Your task to perform on an android device: Clear all items from cart on costco.com. Add "macbook pro 15 inch" to the cart on costco.com Image 0: 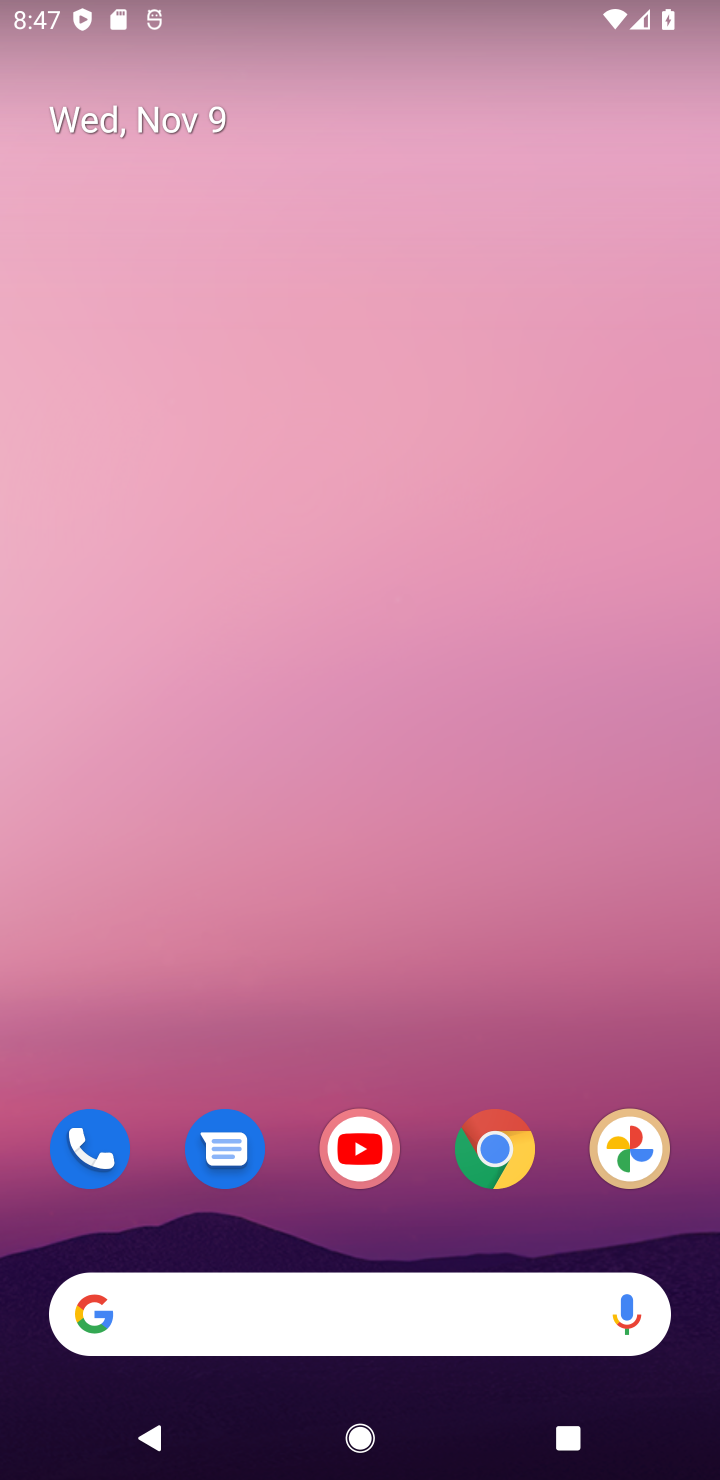
Step 0: click (498, 1134)
Your task to perform on an android device: Clear all items from cart on costco.com. Add "macbook pro 15 inch" to the cart on costco.com Image 1: 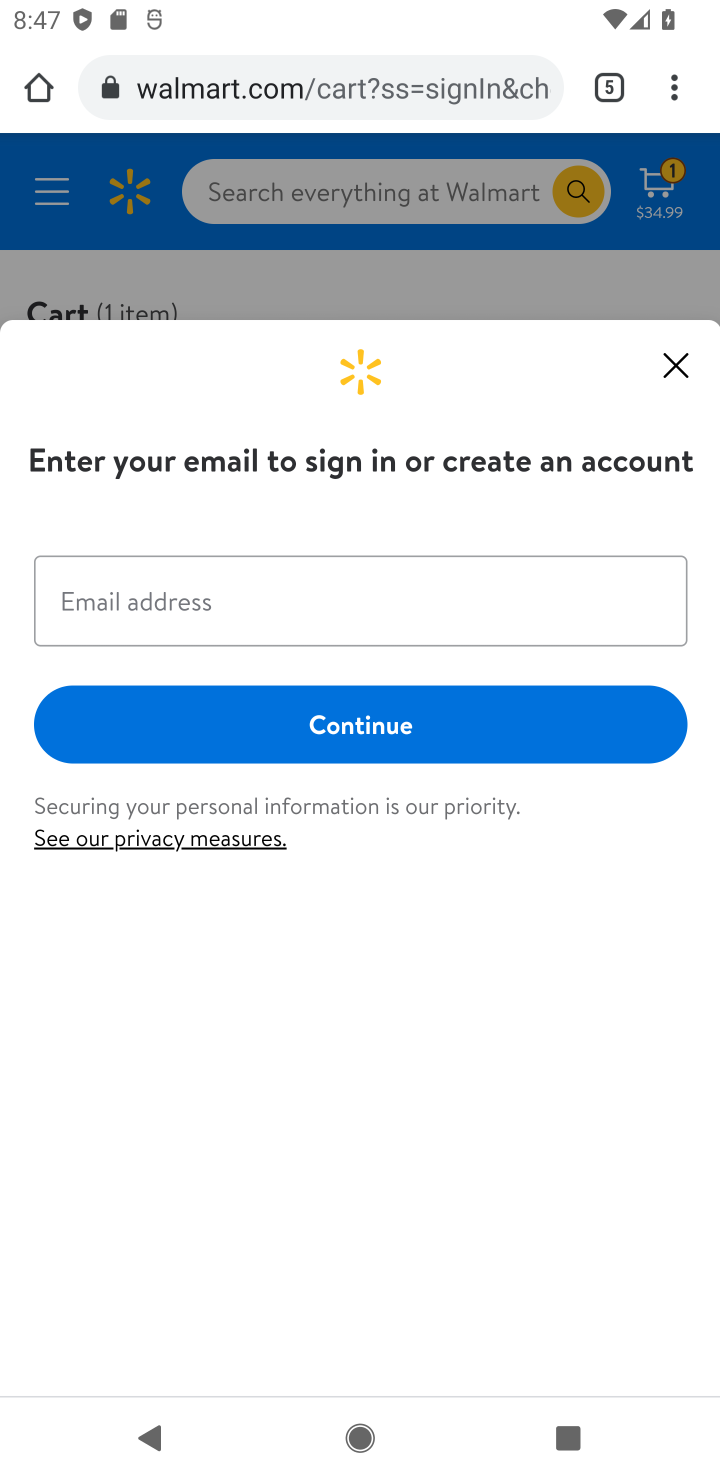
Step 1: click (611, 84)
Your task to perform on an android device: Clear all items from cart on costco.com. Add "macbook pro 15 inch" to the cart on costco.com Image 2: 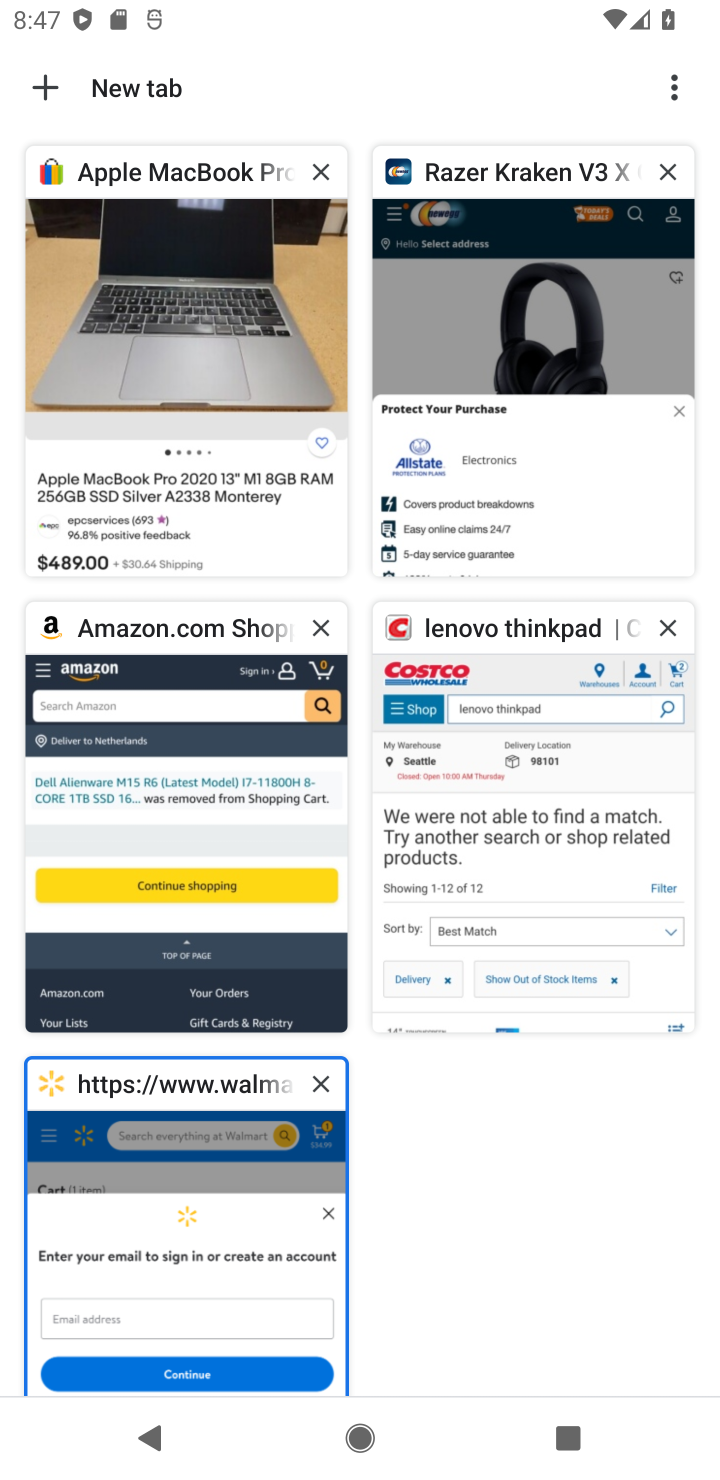
Step 2: click (526, 741)
Your task to perform on an android device: Clear all items from cart on costco.com. Add "macbook pro 15 inch" to the cart on costco.com Image 3: 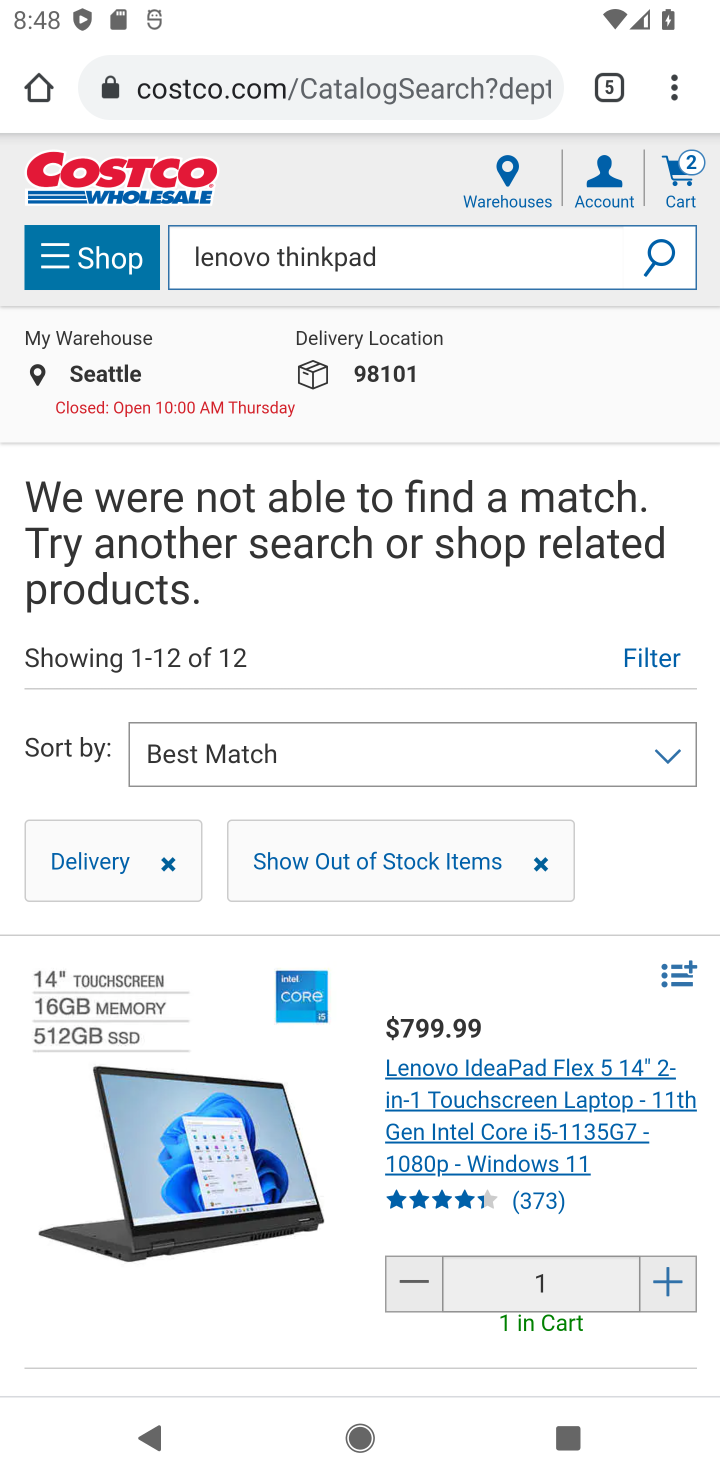
Step 3: click (680, 188)
Your task to perform on an android device: Clear all items from cart on costco.com. Add "macbook pro 15 inch" to the cart on costco.com Image 4: 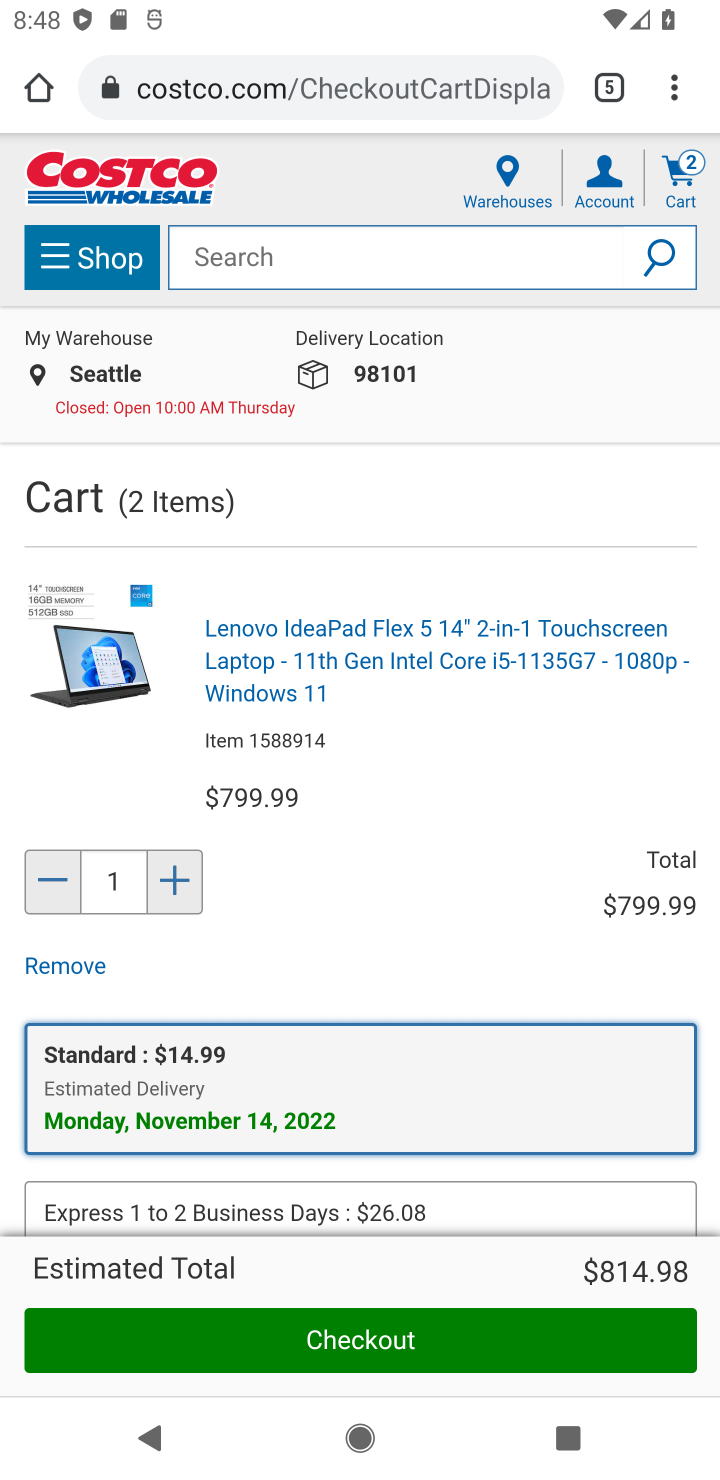
Step 4: click (80, 966)
Your task to perform on an android device: Clear all items from cart on costco.com. Add "macbook pro 15 inch" to the cart on costco.com Image 5: 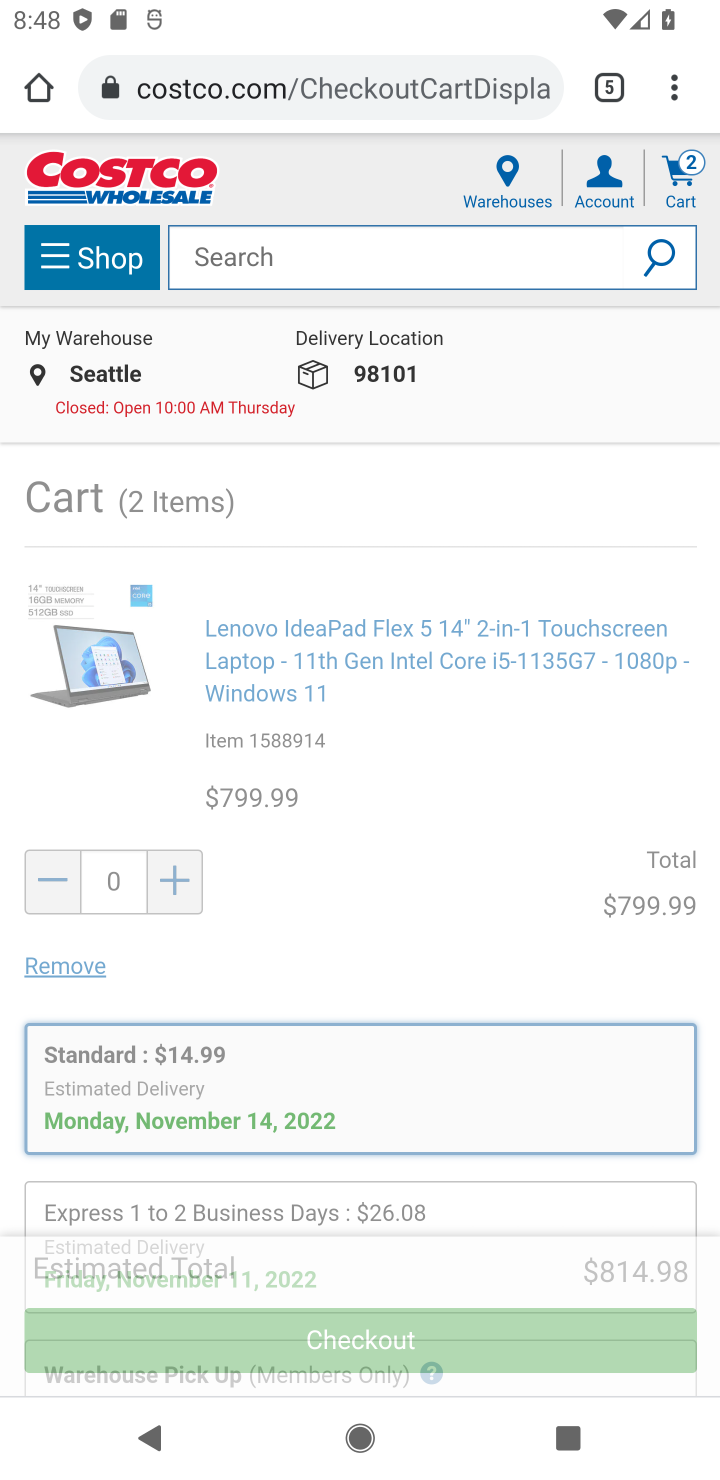
Step 5: drag from (365, 972) to (349, 527)
Your task to perform on an android device: Clear all items from cart on costco.com. Add "macbook pro 15 inch" to the cart on costco.com Image 6: 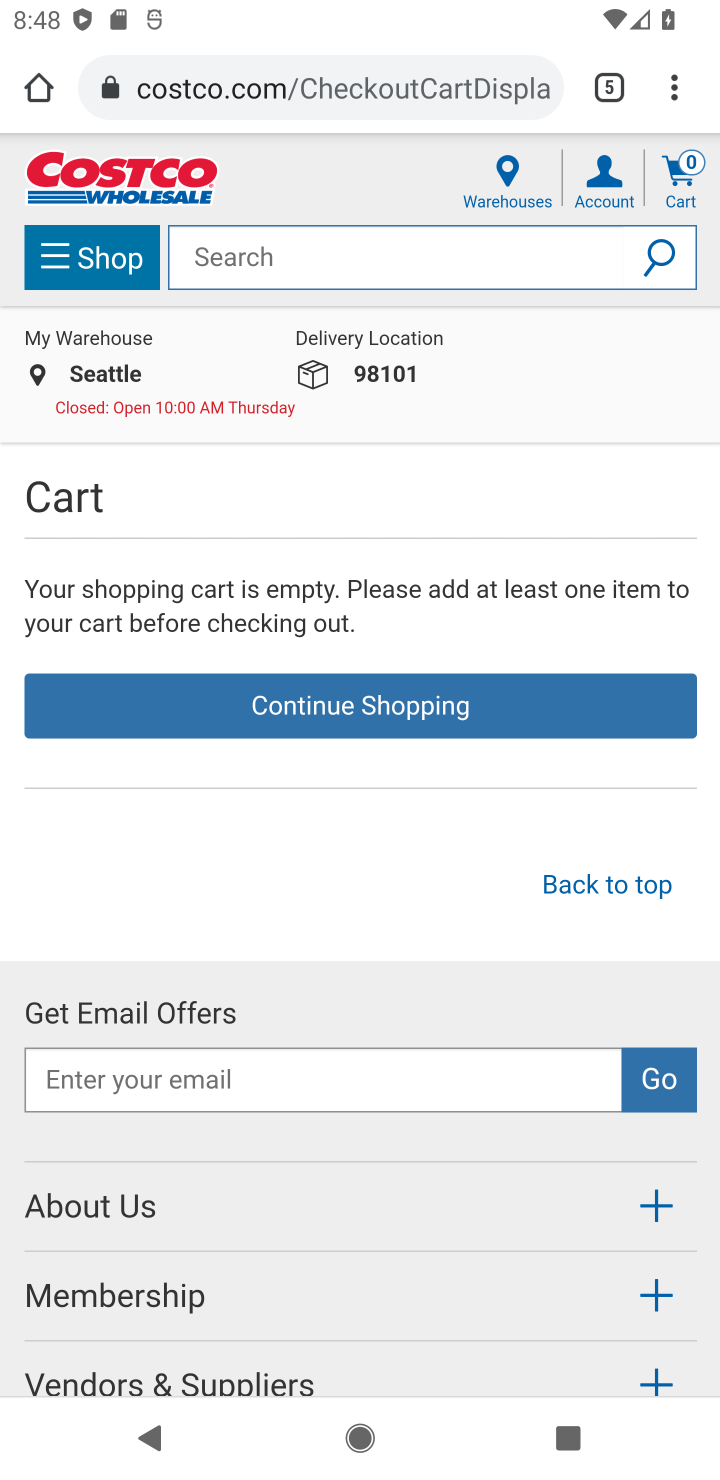
Step 6: click (368, 252)
Your task to perform on an android device: Clear all items from cart on costco.com. Add "macbook pro 15 inch" to the cart on costco.com Image 7: 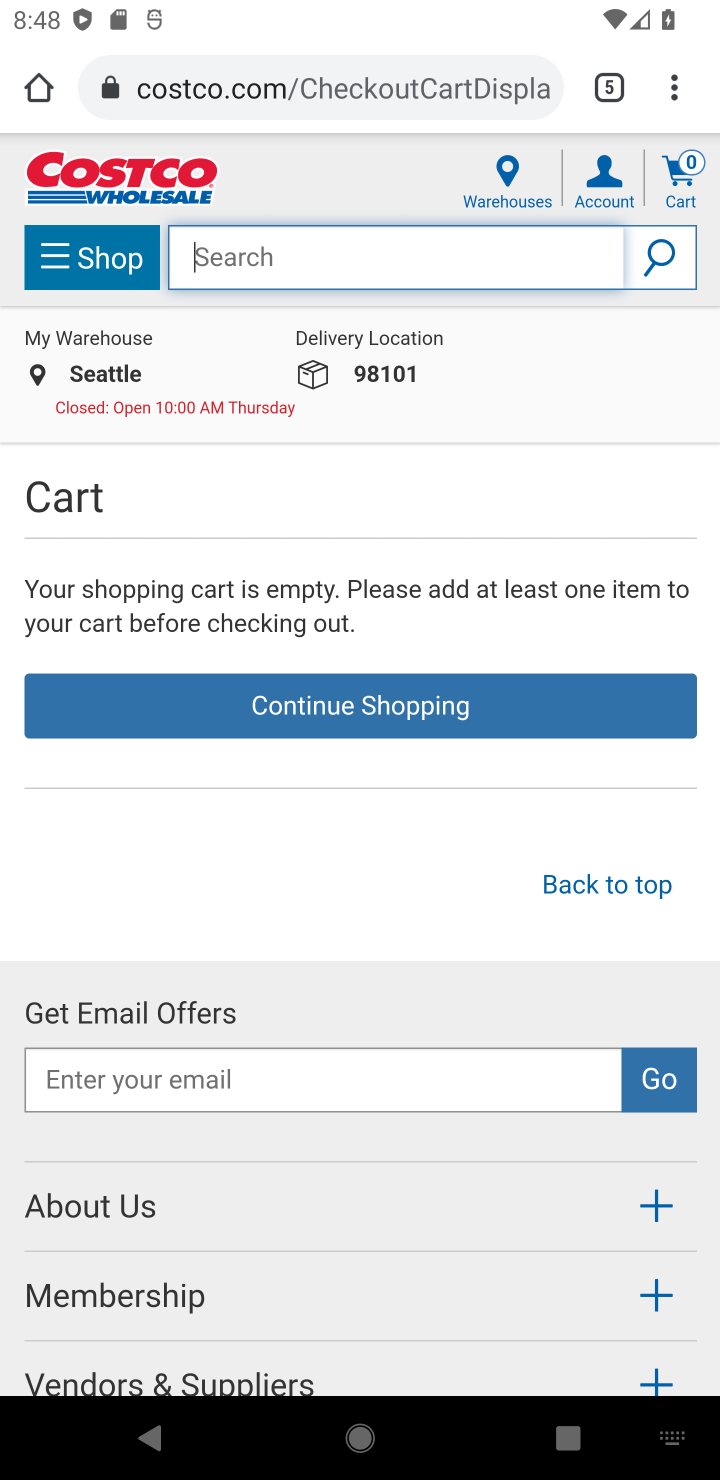
Step 7: type "macbook pro 15 inch"
Your task to perform on an android device: Clear all items from cart on costco.com. Add "macbook pro 15 inch" to the cart on costco.com Image 8: 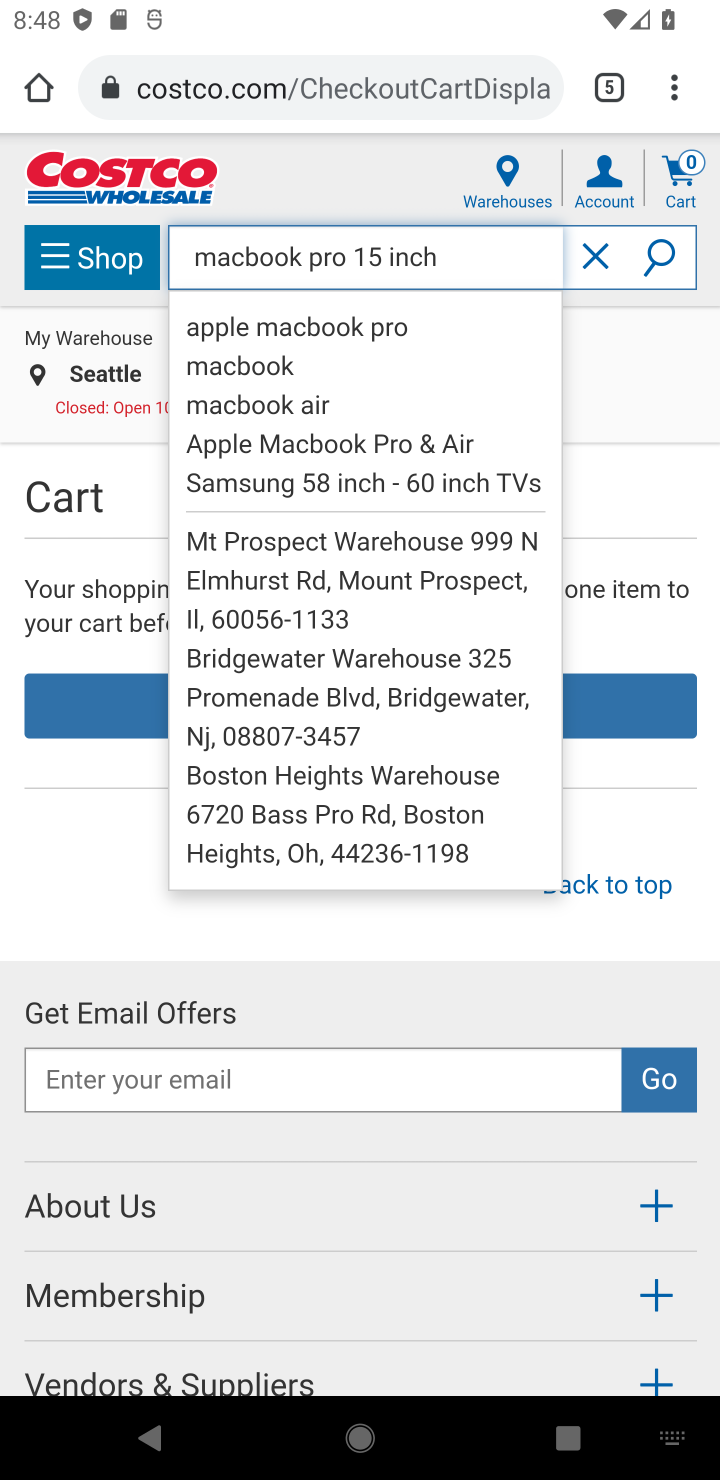
Step 8: click (662, 249)
Your task to perform on an android device: Clear all items from cart on costco.com. Add "macbook pro 15 inch" to the cart on costco.com Image 9: 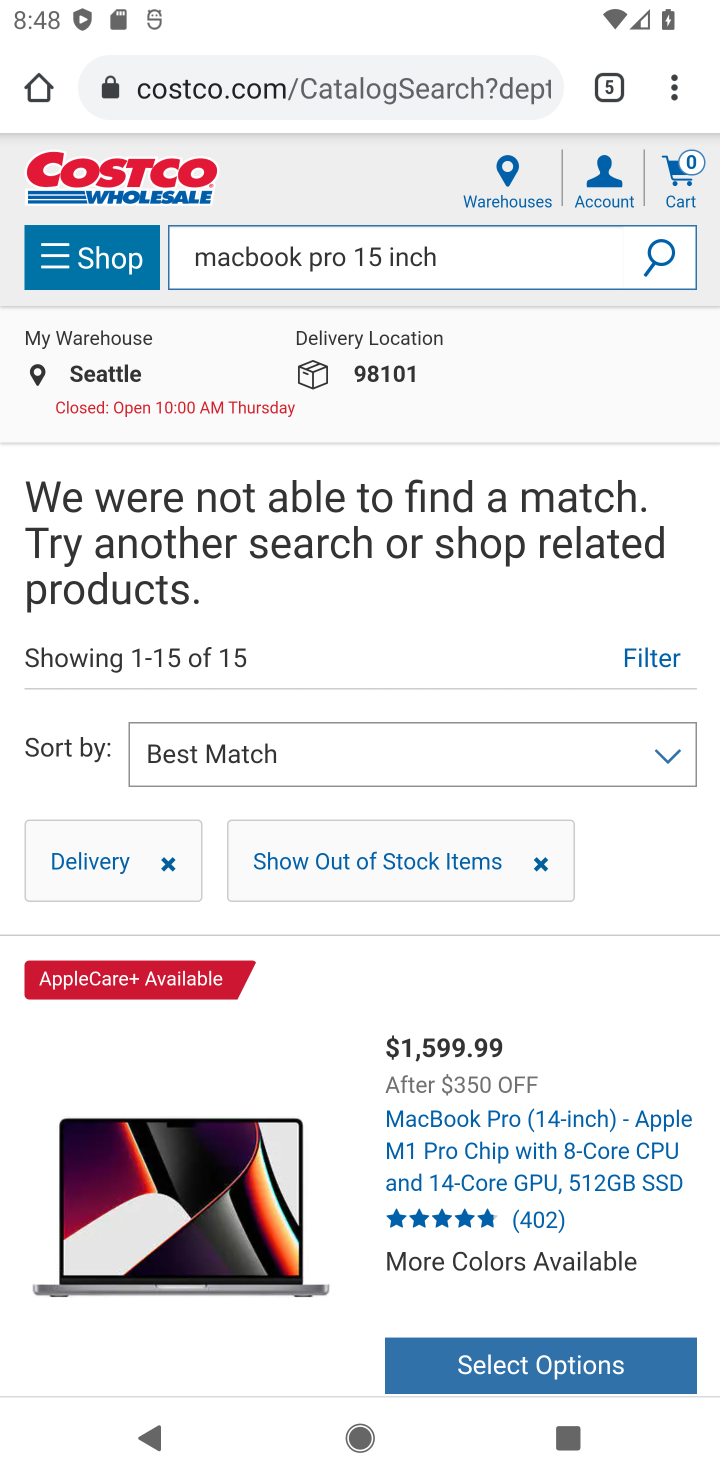
Step 9: click (613, 1186)
Your task to perform on an android device: Clear all items from cart on costco.com. Add "macbook pro 15 inch" to the cart on costco.com Image 10: 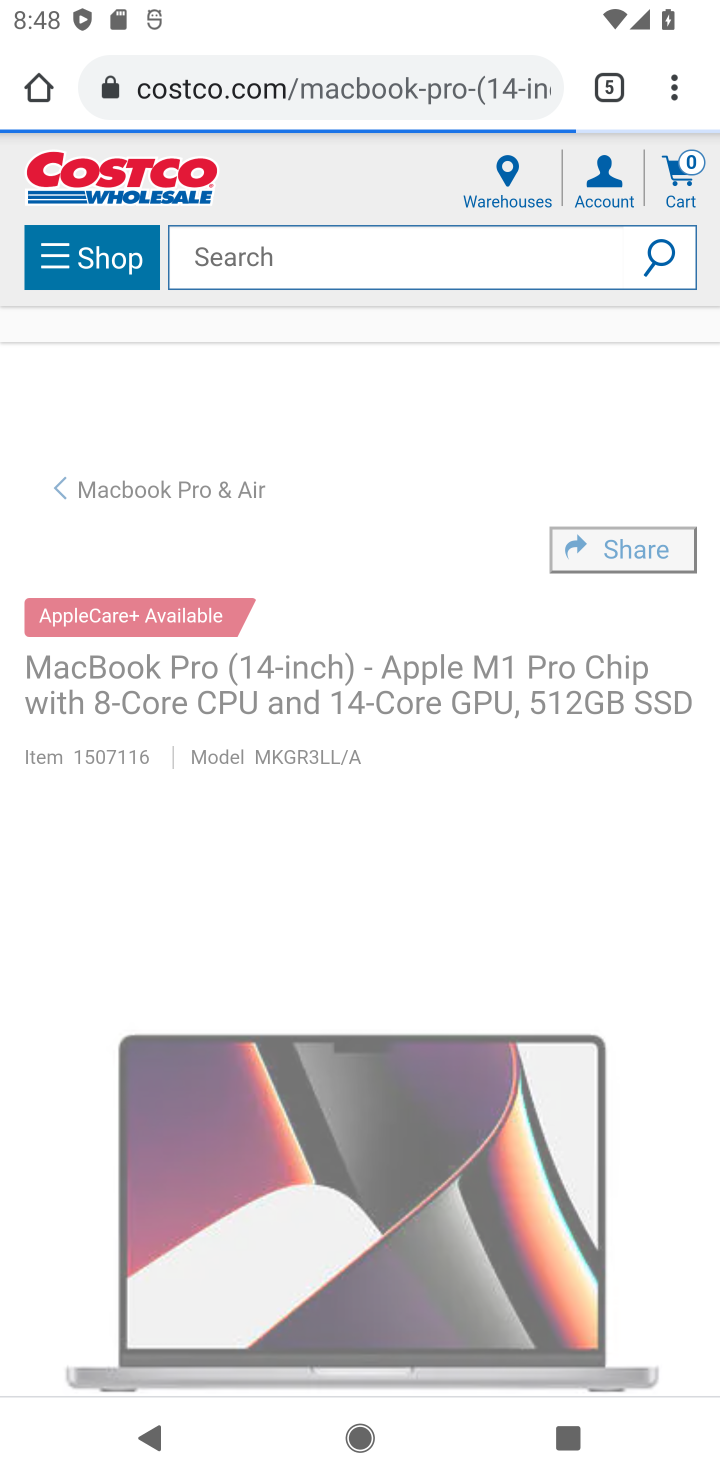
Step 10: drag from (445, 1163) to (481, 458)
Your task to perform on an android device: Clear all items from cart on costco.com. Add "macbook pro 15 inch" to the cart on costco.com Image 11: 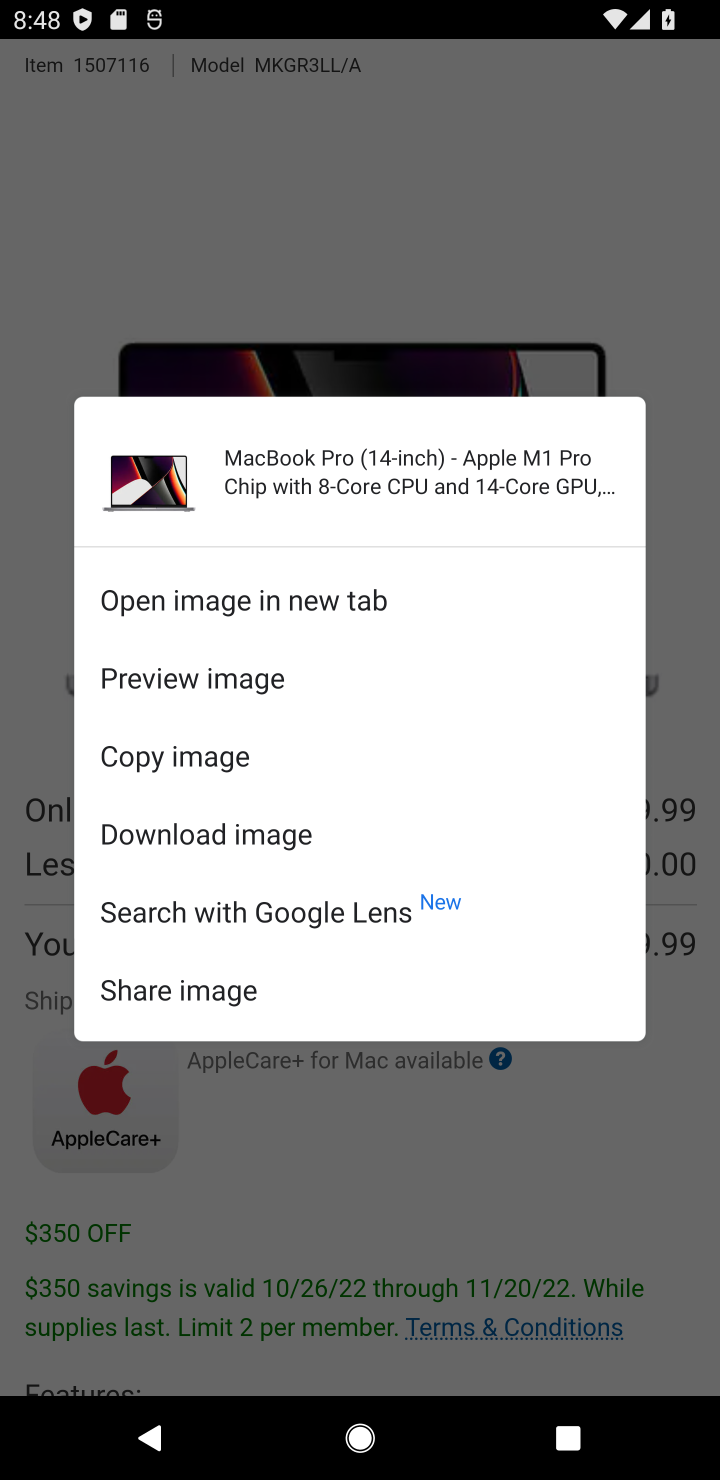
Step 11: click (359, 1222)
Your task to perform on an android device: Clear all items from cart on costco.com. Add "macbook pro 15 inch" to the cart on costco.com Image 12: 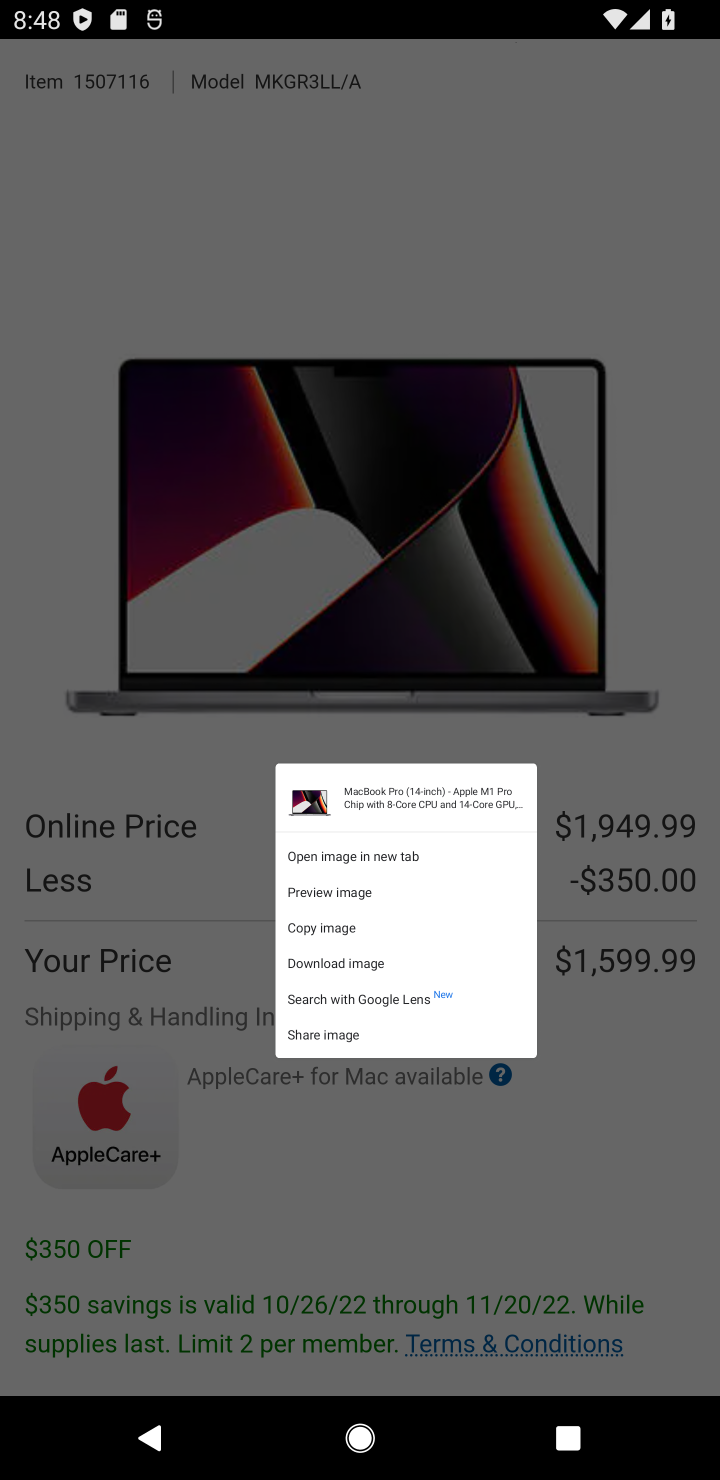
Step 12: drag from (359, 1222) to (399, 643)
Your task to perform on an android device: Clear all items from cart on costco.com. Add "macbook pro 15 inch" to the cart on costco.com Image 13: 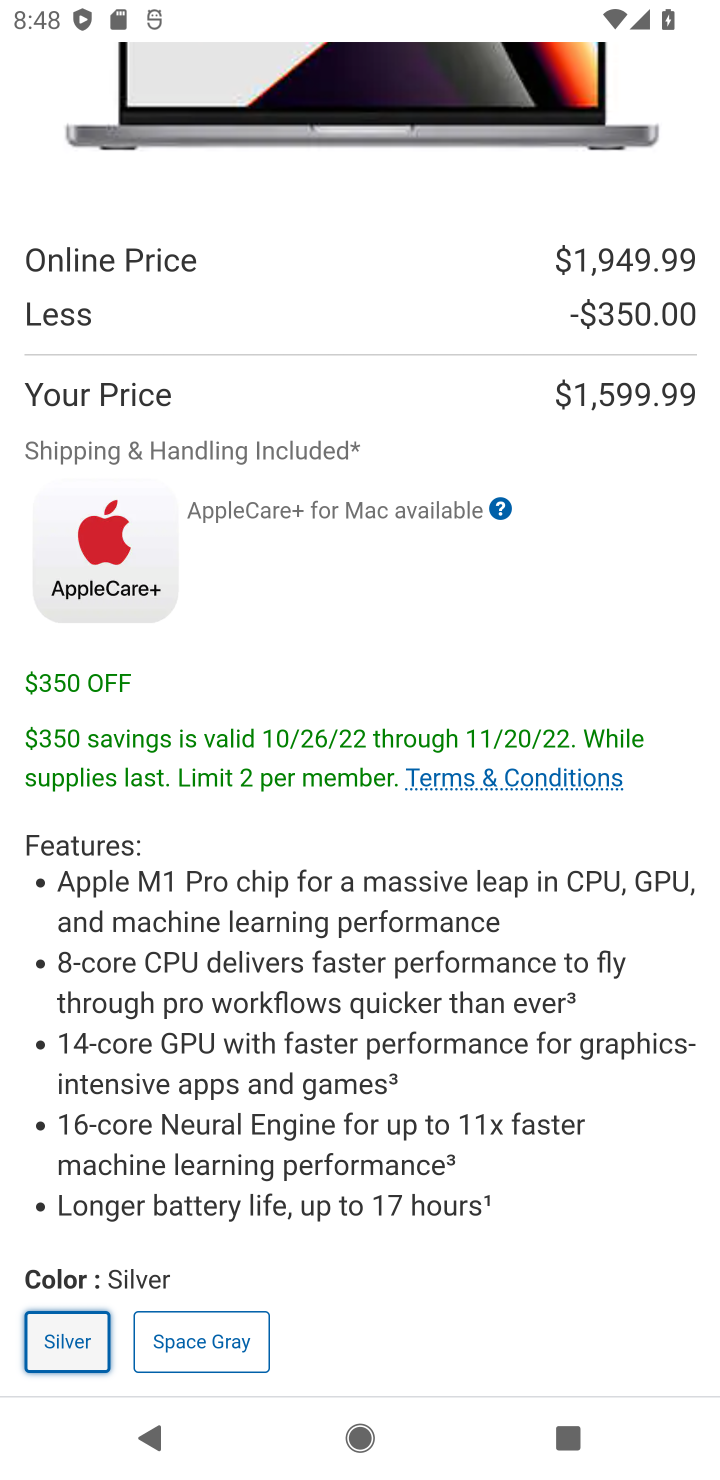
Step 13: drag from (318, 1287) to (519, 440)
Your task to perform on an android device: Clear all items from cart on costco.com. Add "macbook pro 15 inch" to the cart on costco.com Image 14: 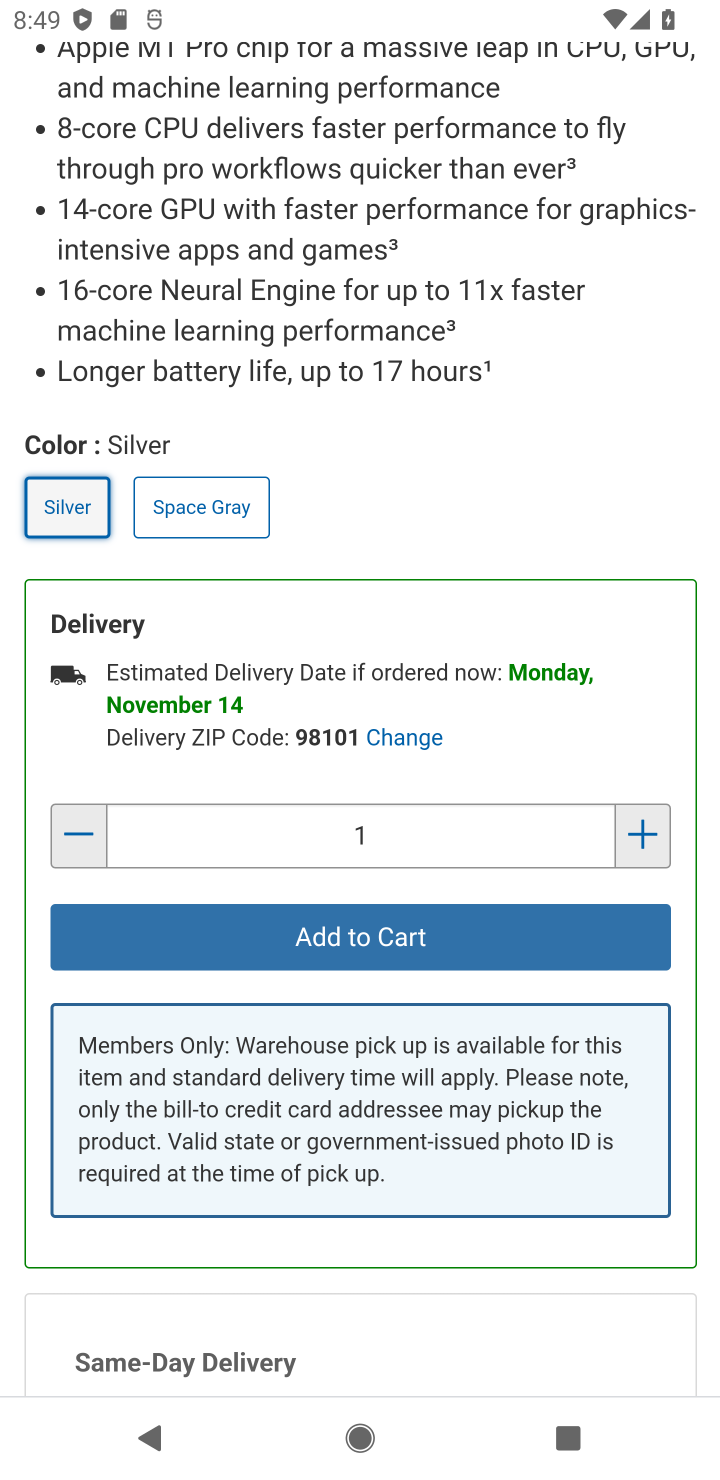
Step 14: click (412, 941)
Your task to perform on an android device: Clear all items from cart on costco.com. Add "macbook pro 15 inch" to the cart on costco.com Image 15: 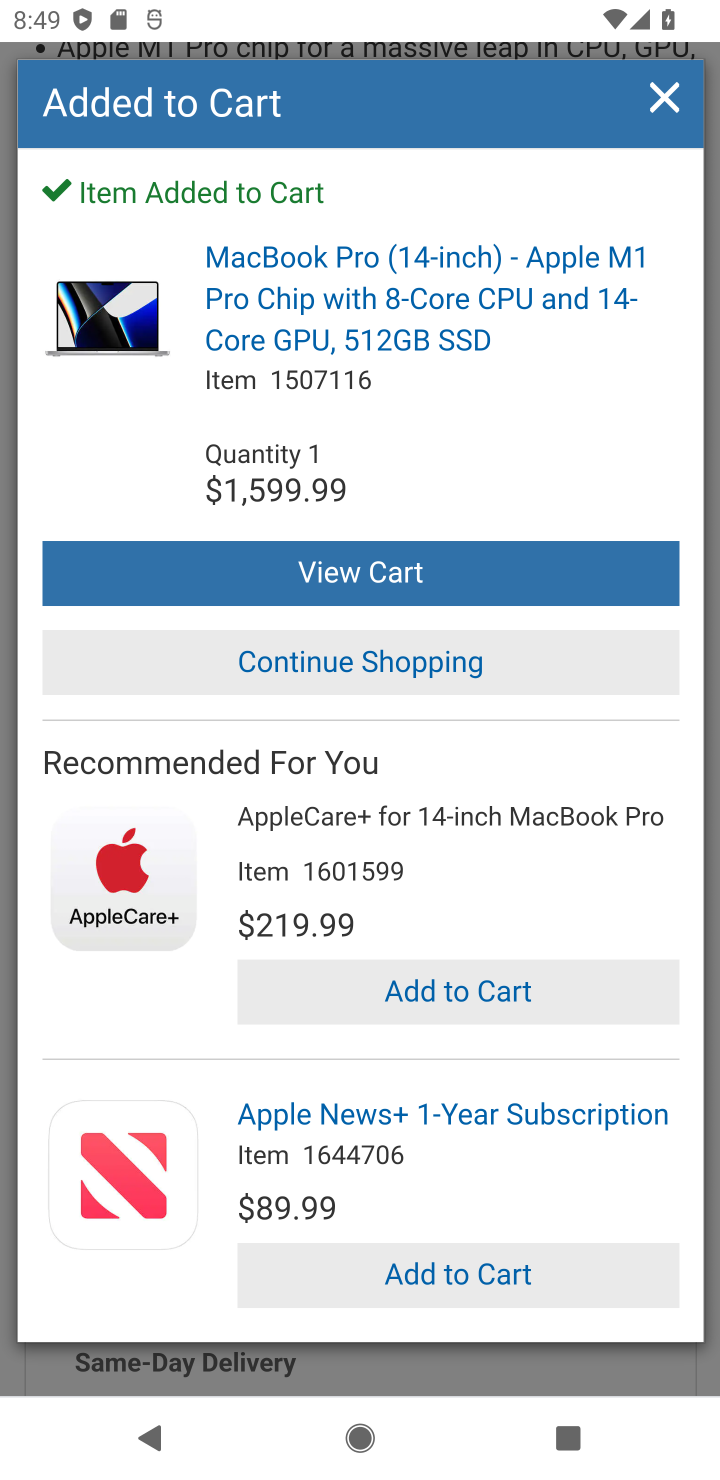
Step 15: task complete